Your task to perform on an android device: check out phone information Image 0: 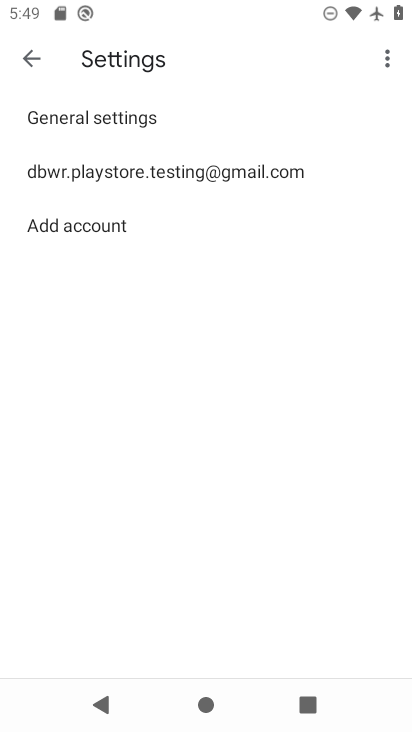
Step 0: press home button
Your task to perform on an android device: check out phone information Image 1: 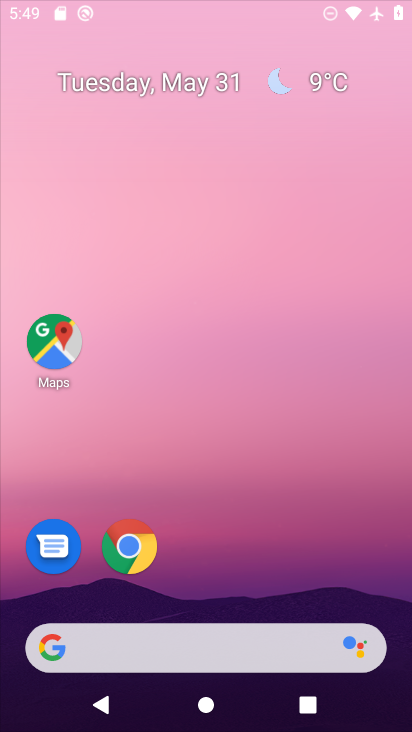
Step 1: drag from (270, 552) to (191, 53)
Your task to perform on an android device: check out phone information Image 2: 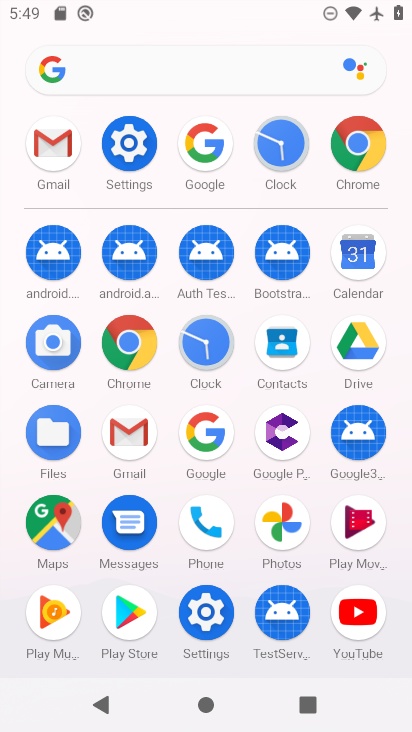
Step 2: click (110, 148)
Your task to perform on an android device: check out phone information Image 3: 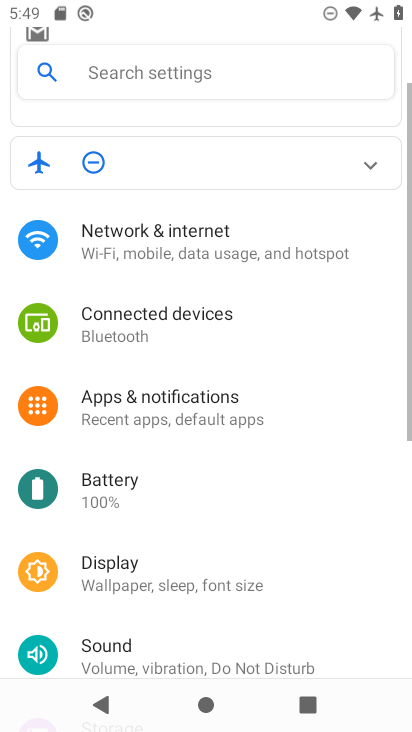
Step 3: drag from (263, 554) to (229, 26)
Your task to perform on an android device: check out phone information Image 4: 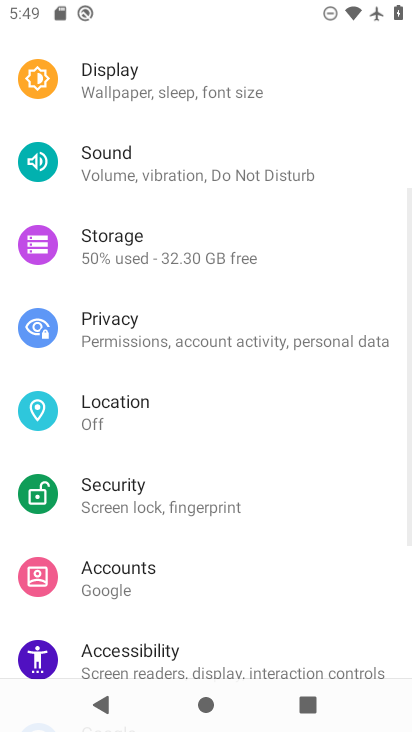
Step 4: drag from (285, 464) to (258, 56)
Your task to perform on an android device: check out phone information Image 5: 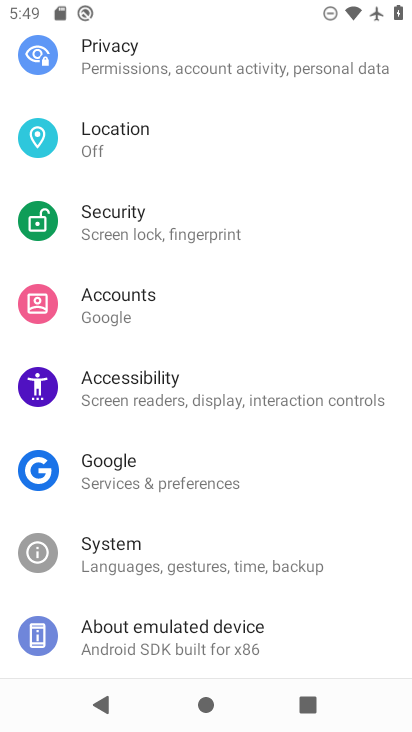
Step 5: click (236, 628)
Your task to perform on an android device: check out phone information Image 6: 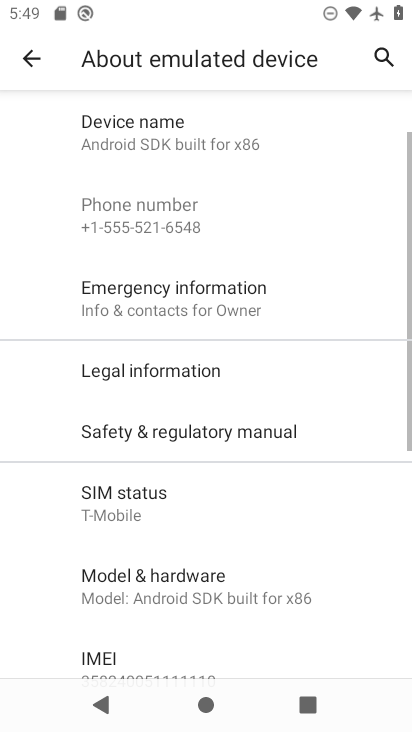
Step 6: task complete